Your task to perform on an android device: allow notifications from all sites in the chrome app Image 0: 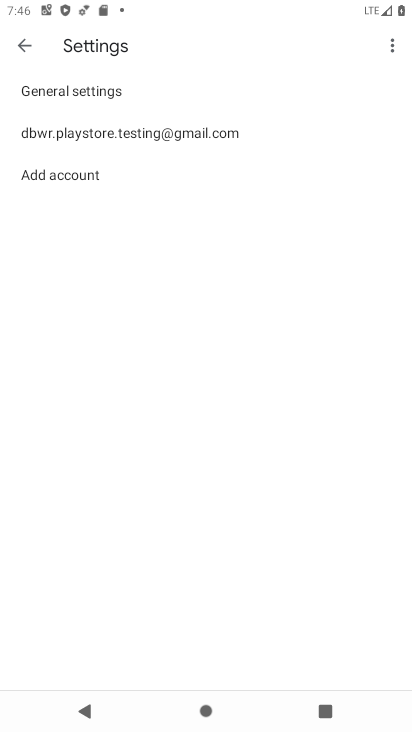
Step 0: press back button
Your task to perform on an android device: allow notifications from all sites in the chrome app Image 1: 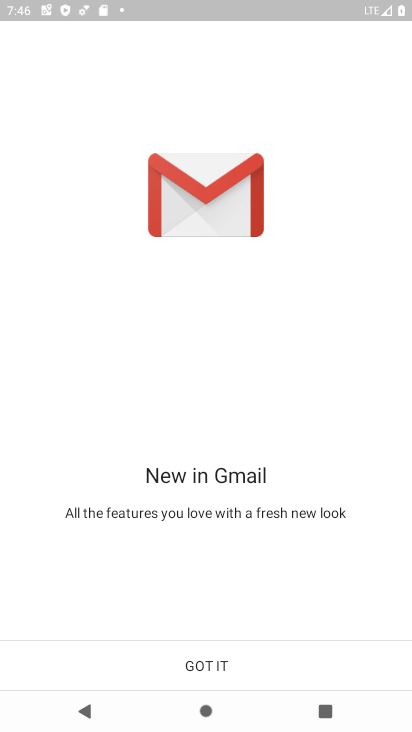
Step 1: press back button
Your task to perform on an android device: allow notifications from all sites in the chrome app Image 2: 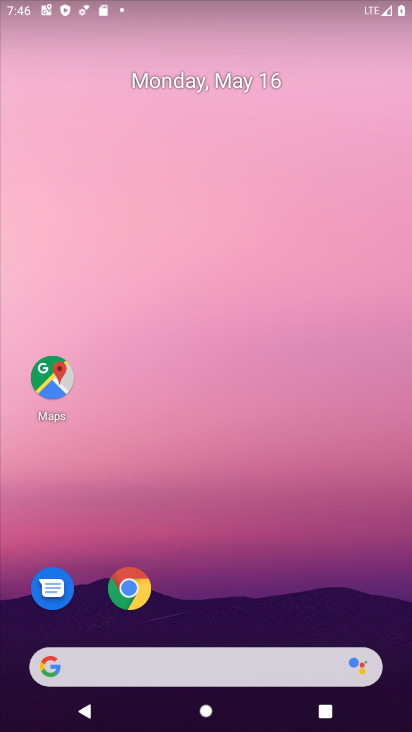
Step 2: drag from (305, 527) to (288, 35)
Your task to perform on an android device: allow notifications from all sites in the chrome app Image 3: 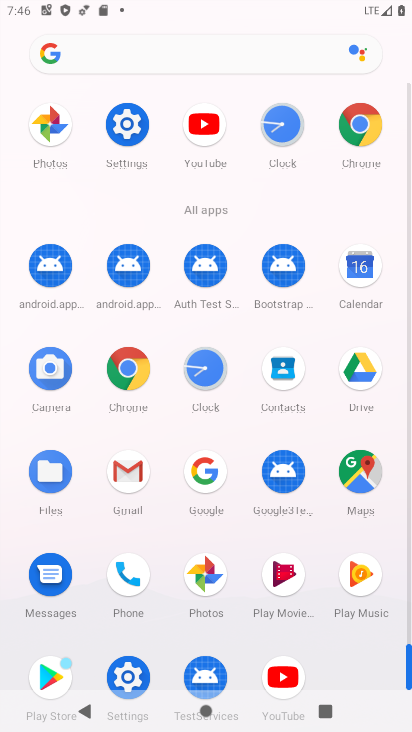
Step 3: click (128, 365)
Your task to perform on an android device: allow notifications from all sites in the chrome app Image 4: 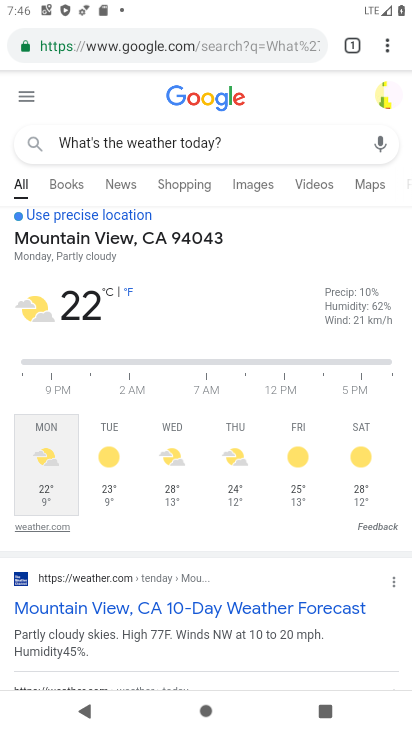
Step 4: drag from (385, 40) to (251, 510)
Your task to perform on an android device: allow notifications from all sites in the chrome app Image 5: 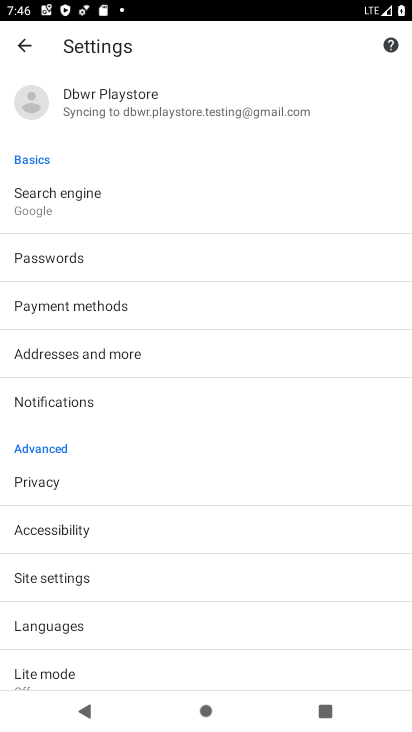
Step 5: drag from (144, 639) to (189, 448)
Your task to perform on an android device: allow notifications from all sites in the chrome app Image 6: 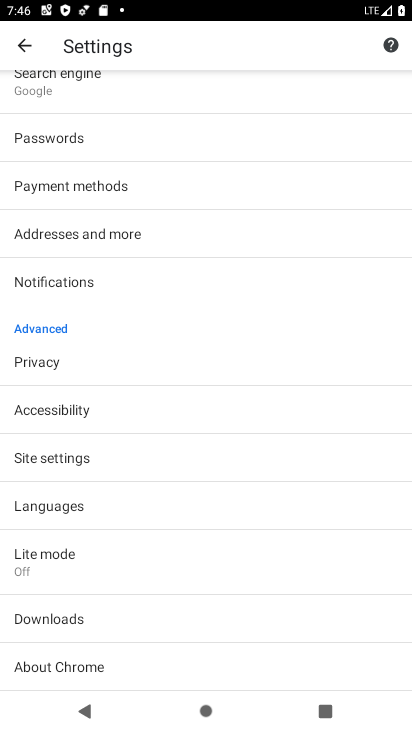
Step 6: click (93, 458)
Your task to perform on an android device: allow notifications from all sites in the chrome app Image 7: 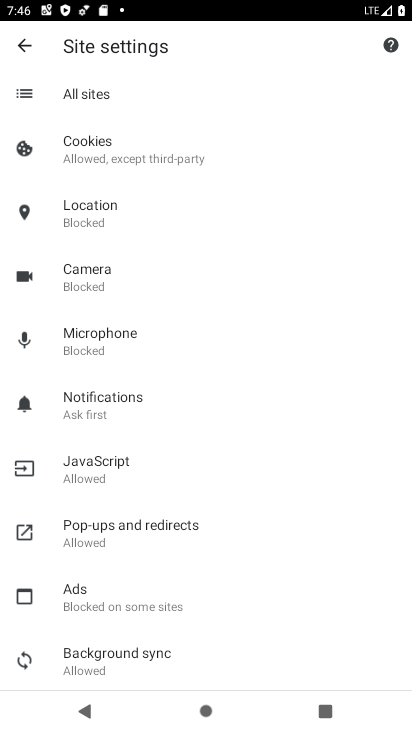
Step 7: click (147, 407)
Your task to perform on an android device: allow notifications from all sites in the chrome app Image 8: 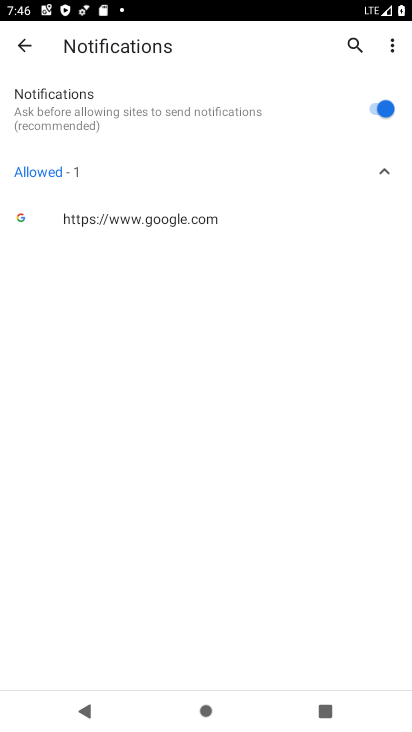
Step 8: task complete